Your task to perform on an android device: Open CNN.com Image 0: 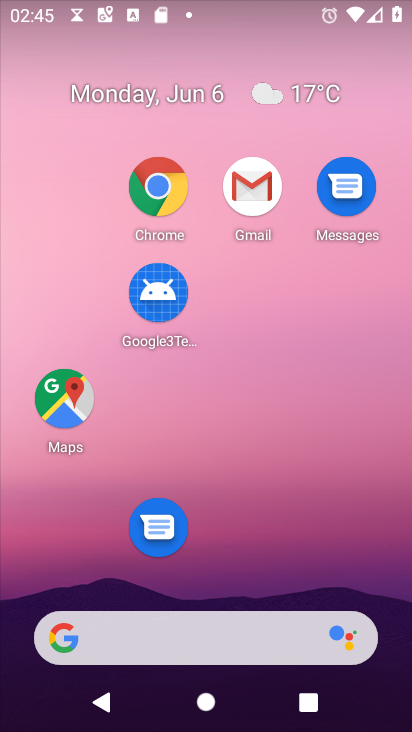
Step 0: click (147, 181)
Your task to perform on an android device: Open CNN.com Image 1: 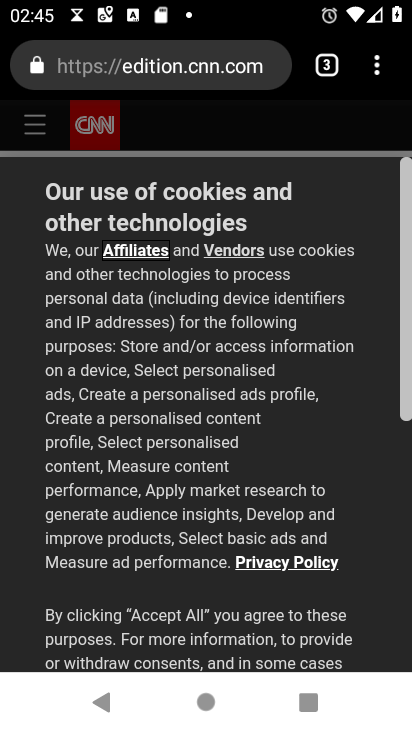
Step 1: task complete